Your task to perform on an android device: Open Google Maps and go to "Timeline" Image 0: 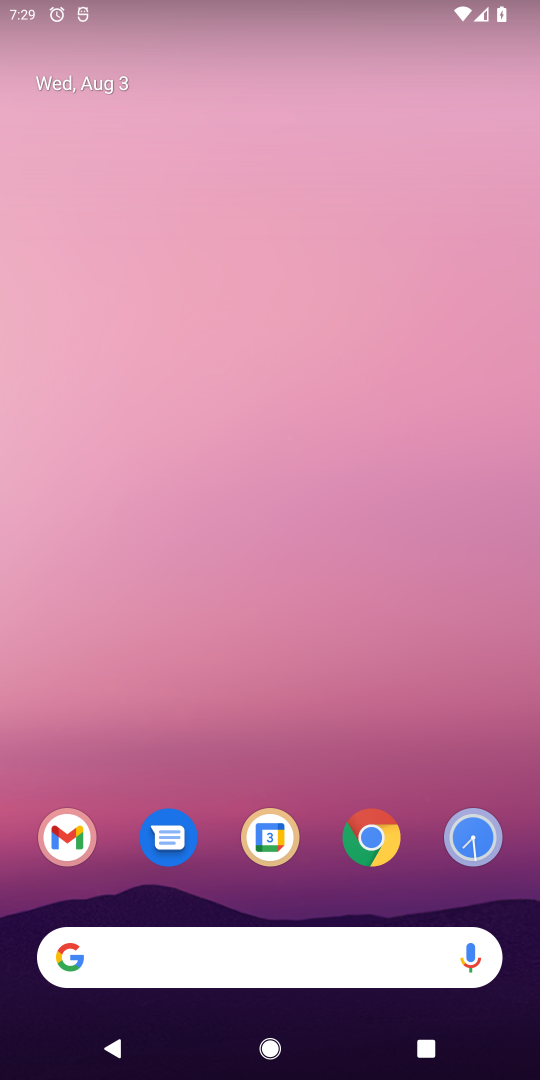
Step 0: drag from (227, 880) to (371, 114)
Your task to perform on an android device: Open Google Maps and go to "Timeline" Image 1: 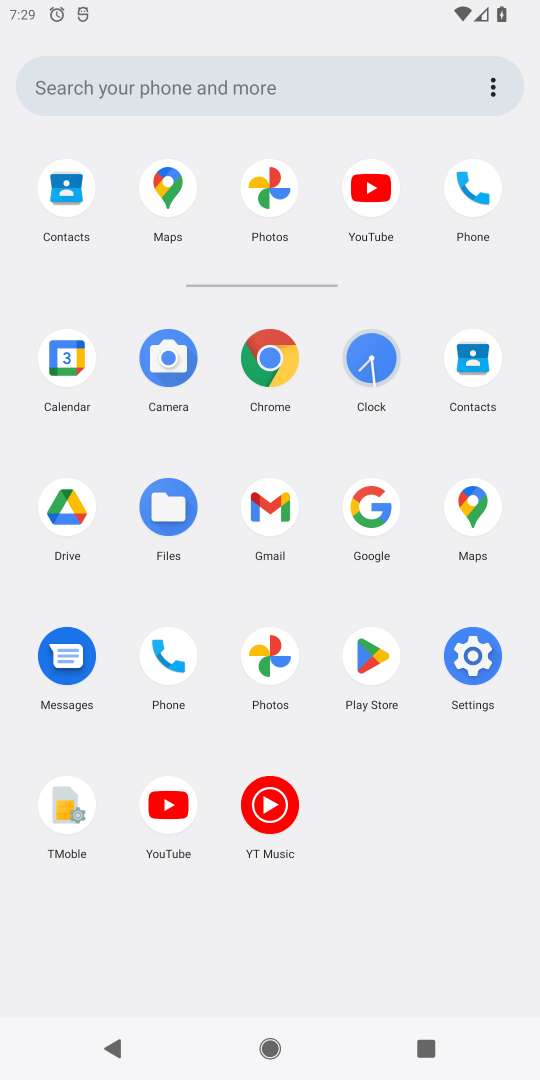
Step 1: click (176, 190)
Your task to perform on an android device: Open Google Maps and go to "Timeline" Image 2: 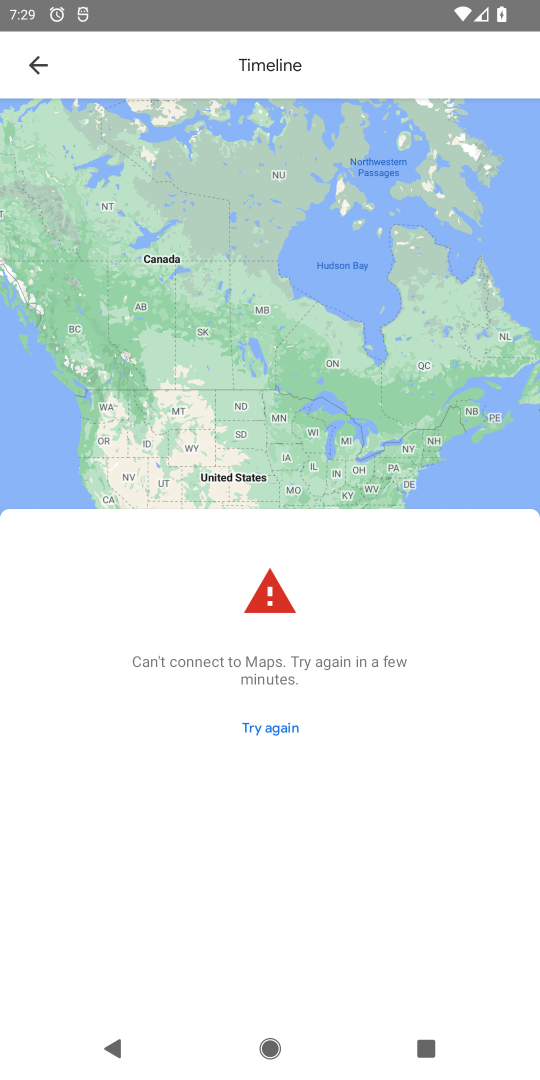
Step 2: click (264, 734)
Your task to perform on an android device: Open Google Maps and go to "Timeline" Image 3: 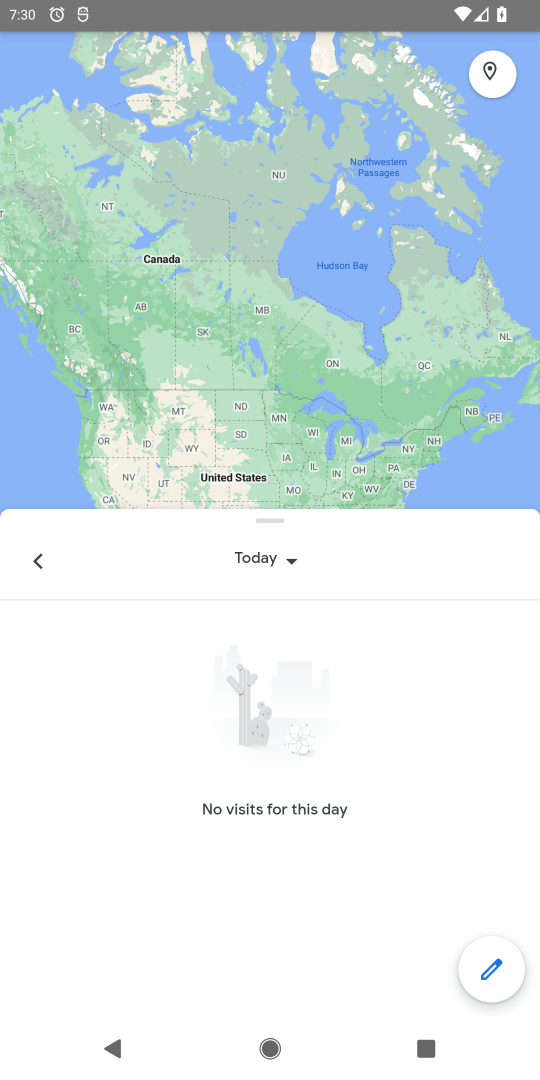
Step 3: task complete